Your task to perform on an android device: star an email in the gmail app Image 0: 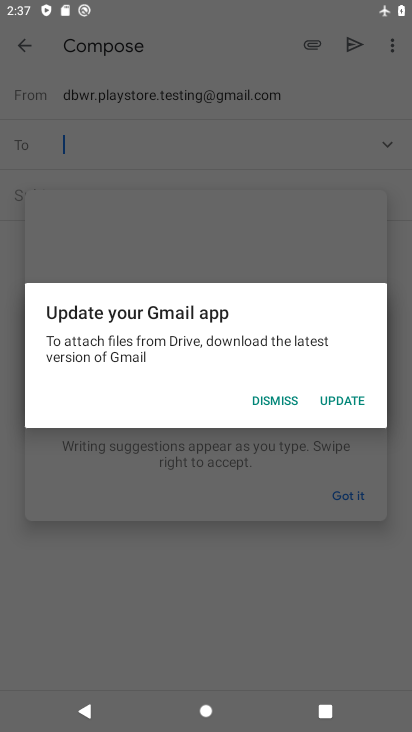
Step 0: press home button
Your task to perform on an android device: star an email in the gmail app Image 1: 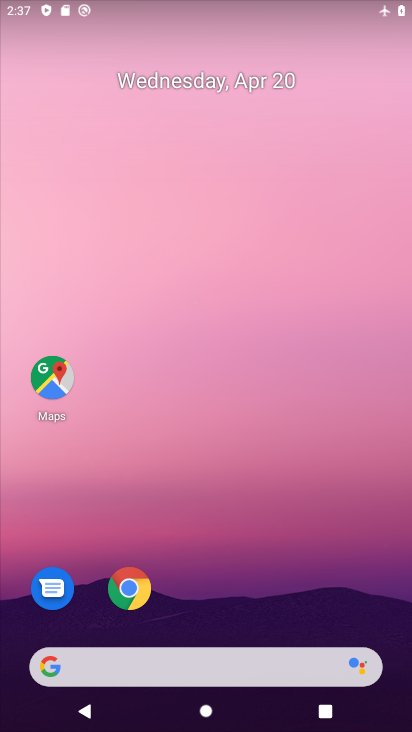
Step 1: drag from (241, 575) to (209, 96)
Your task to perform on an android device: star an email in the gmail app Image 2: 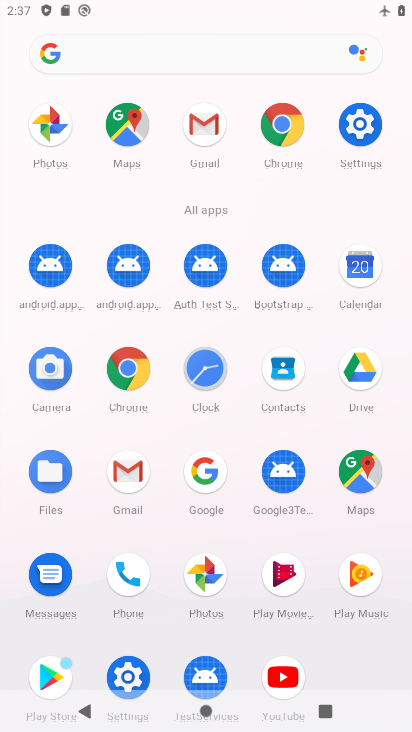
Step 2: click (127, 462)
Your task to perform on an android device: star an email in the gmail app Image 3: 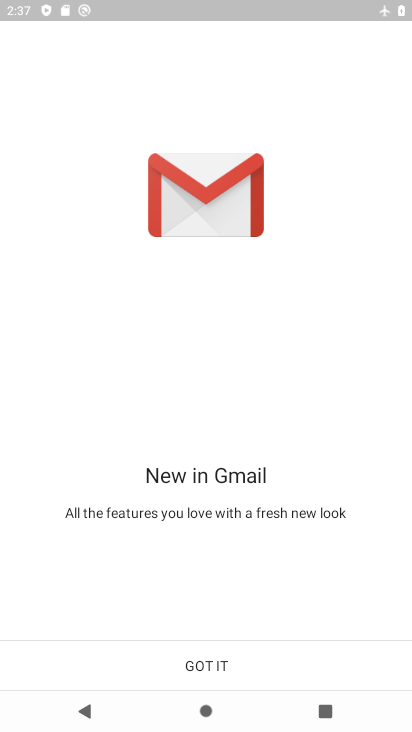
Step 3: click (215, 660)
Your task to perform on an android device: star an email in the gmail app Image 4: 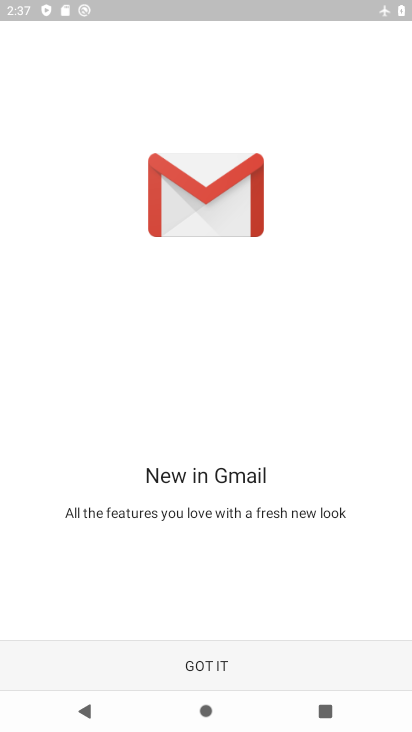
Step 4: click (215, 660)
Your task to perform on an android device: star an email in the gmail app Image 5: 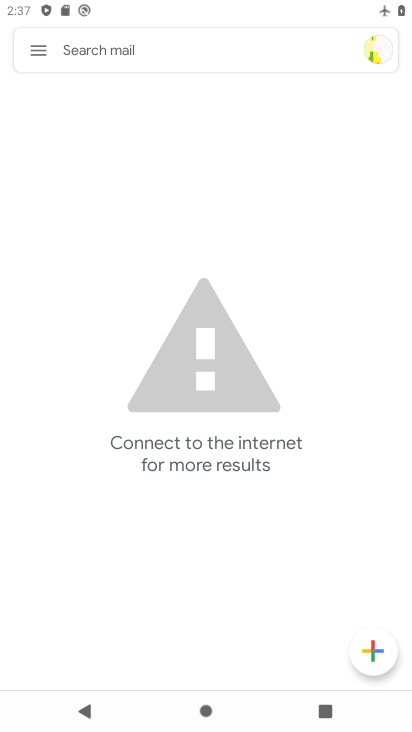
Step 5: task complete